Your task to perform on an android device: turn pop-ups on in chrome Image 0: 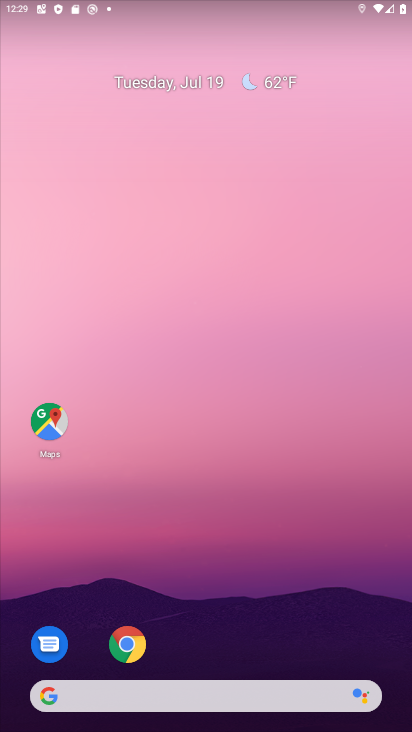
Step 0: click (132, 638)
Your task to perform on an android device: turn pop-ups on in chrome Image 1: 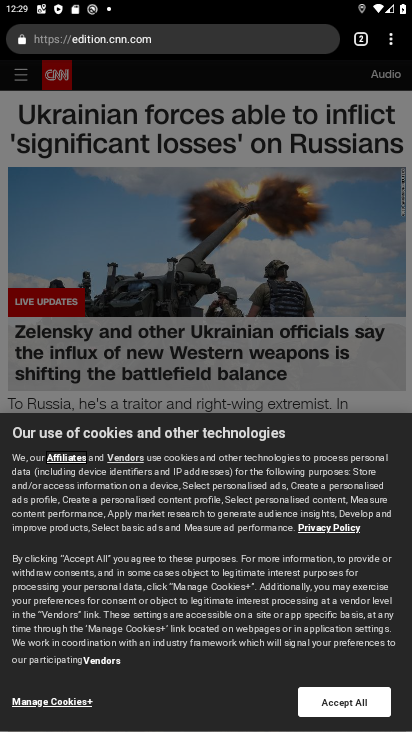
Step 1: click (402, 34)
Your task to perform on an android device: turn pop-ups on in chrome Image 2: 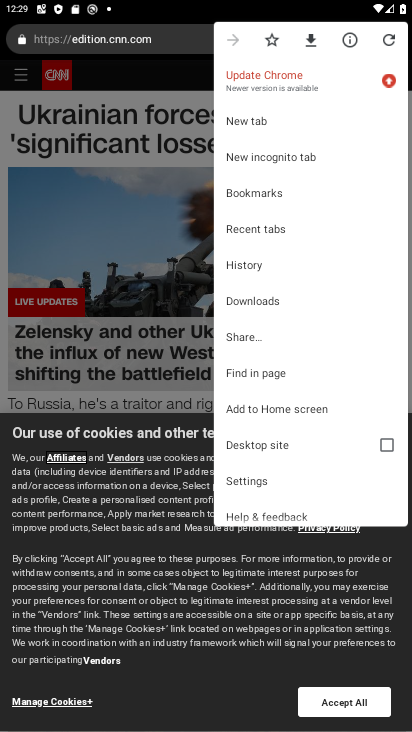
Step 2: click (254, 480)
Your task to perform on an android device: turn pop-ups on in chrome Image 3: 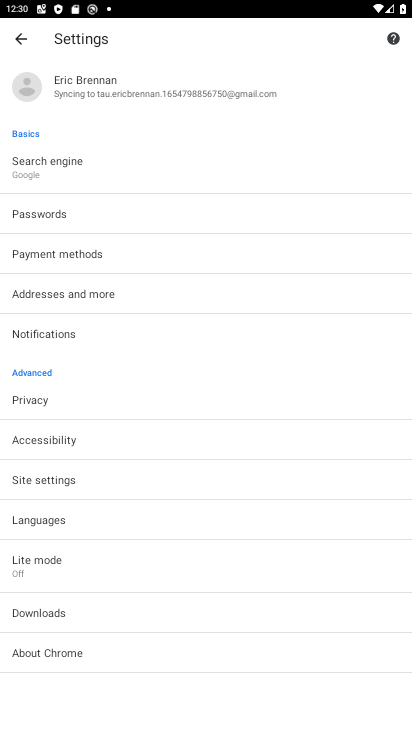
Step 3: click (51, 480)
Your task to perform on an android device: turn pop-ups on in chrome Image 4: 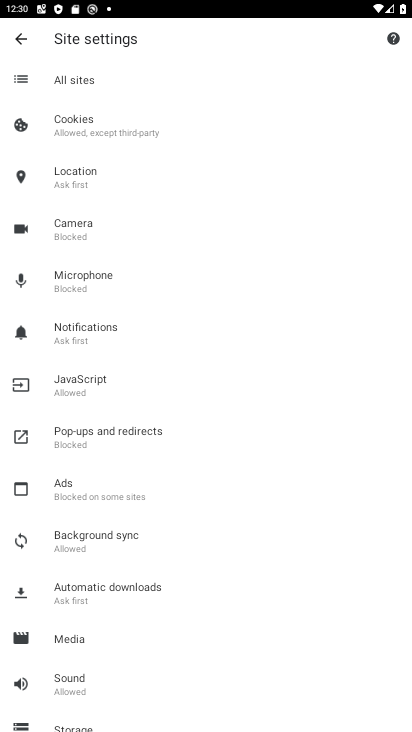
Step 4: click (80, 430)
Your task to perform on an android device: turn pop-ups on in chrome Image 5: 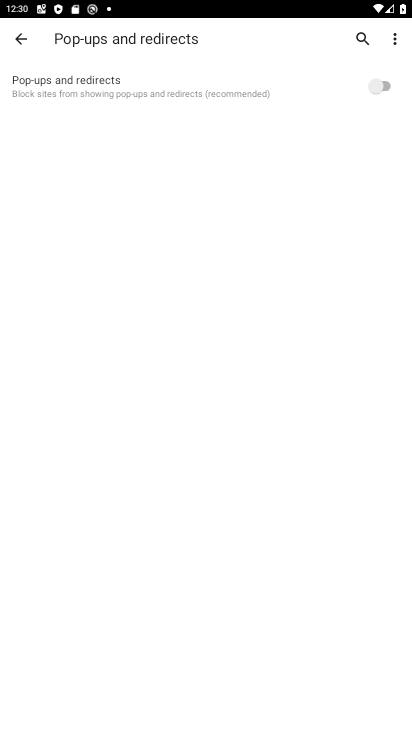
Step 5: click (380, 84)
Your task to perform on an android device: turn pop-ups on in chrome Image 6: 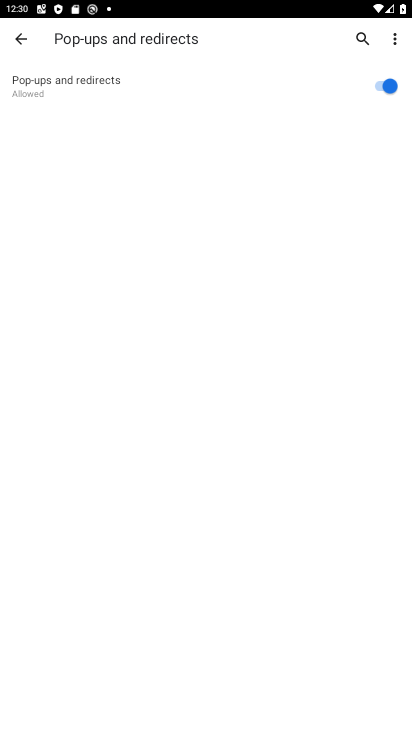
Step 6: task complete